Your task to perform on an android device: see sites visited before in the chrome app Image 0: 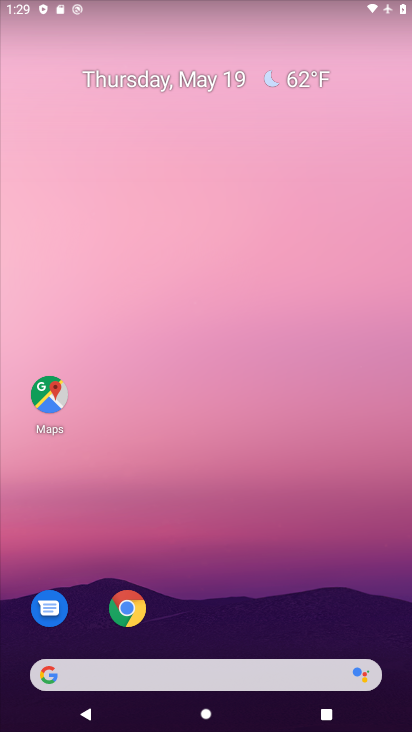
Step 0: click (131, 615)
Your task to perform on an android device: see sites visited before in the chrome app Image 1: 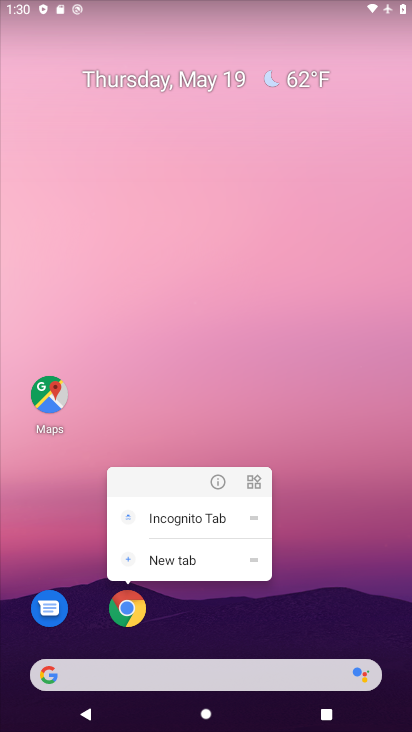
Step 1: click (140, 598)
Your task to perform on an android device: see sites visited before in the chrome app Image 2: 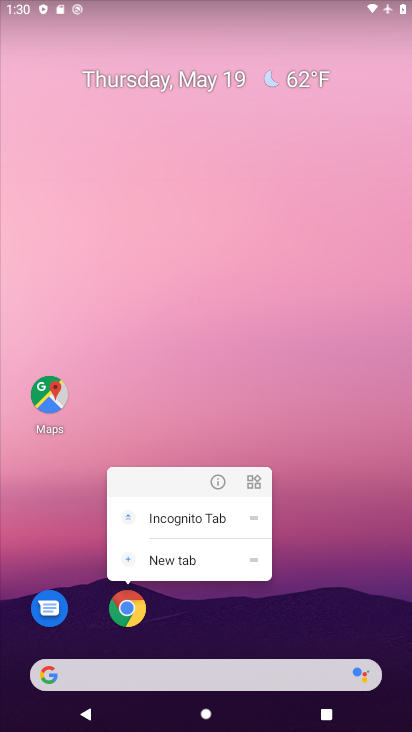
Step 2: click (140, 598)
Your task to perform on an android device: see sites visited before in the chrome app Image 3: 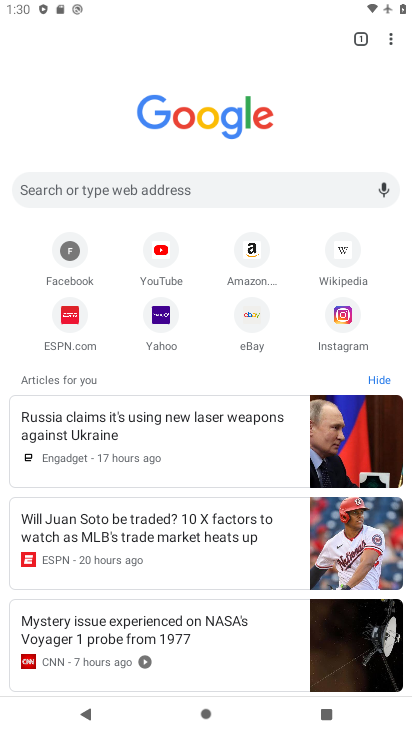
Step 3: click (384, 46)
Your task to perform on an android device: see sites visited before in the chrome app Image 4: 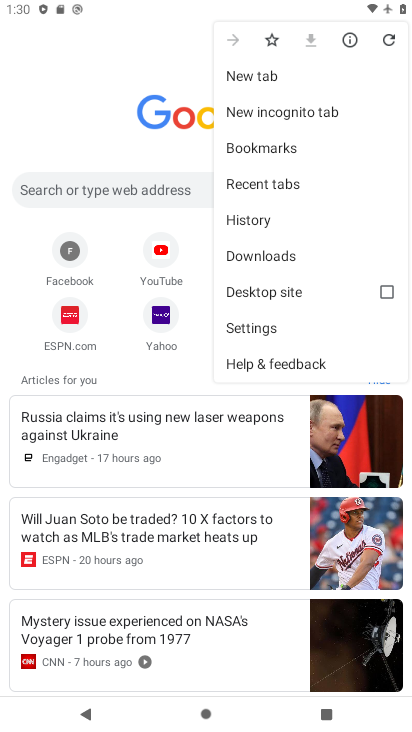
Step 4: click (301, 178)
Your task to perform on an android device: see sites visited before in the chrome app Image 5: 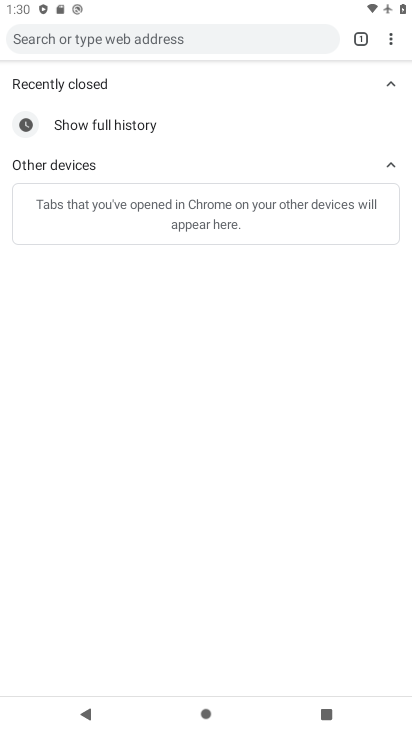
Step 5: task complete